Your task to perform on an android device: turn off smart reply in the gmail app Image 0: 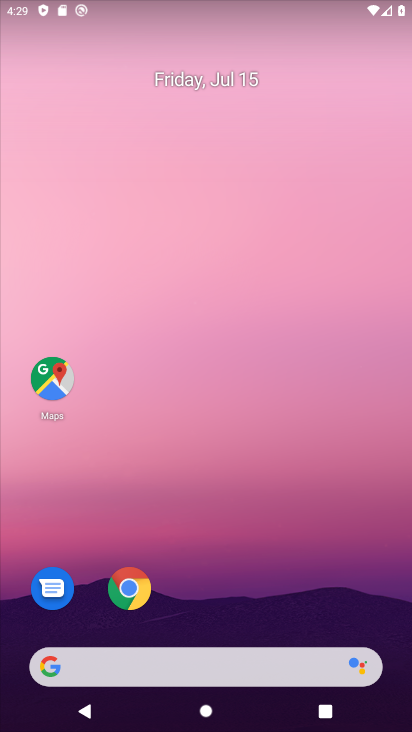
Step 0: drag from (6, 635) to (217, 111)
Your task to perform on an android device: turn off smart reply in the gmail app Image 1: 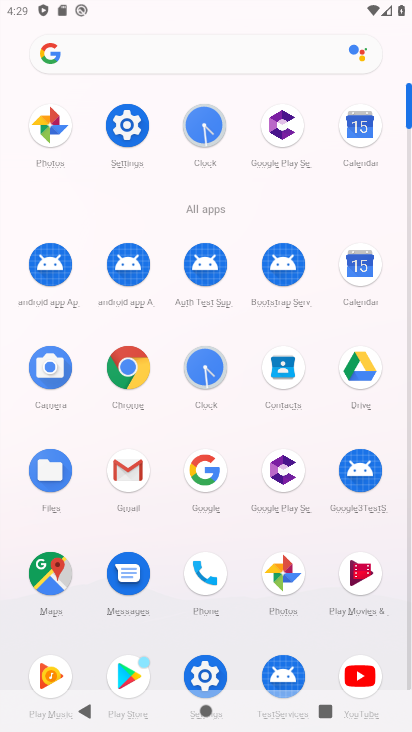
Step 1: click (121, 477)
Your task to perform on an android device: turn off smart reply in the gmail app Image 2: 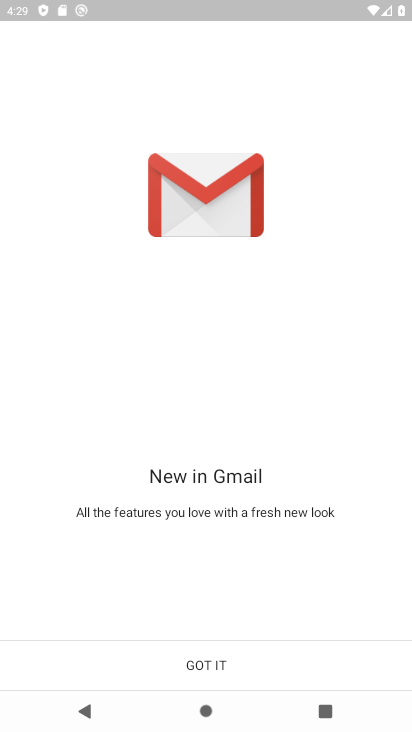
Step 2: click (192, 677)
Your task to perform on an android device: turn off smart reply in the gmail app Image 3: 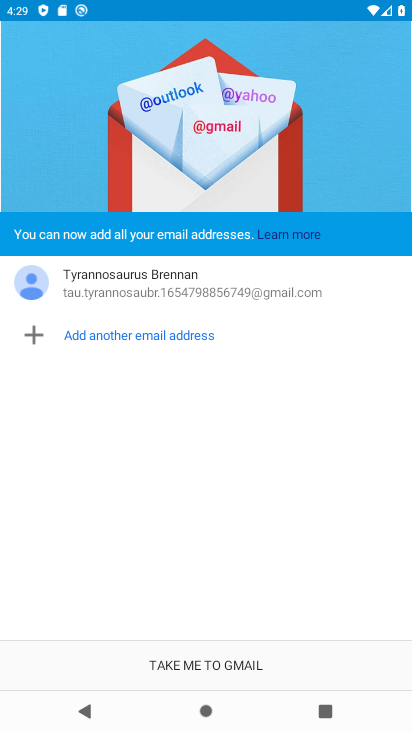
Step 3: click (186, 654)
Your task to perform on an android device: turn off smart reply in the gmail app Image 4: 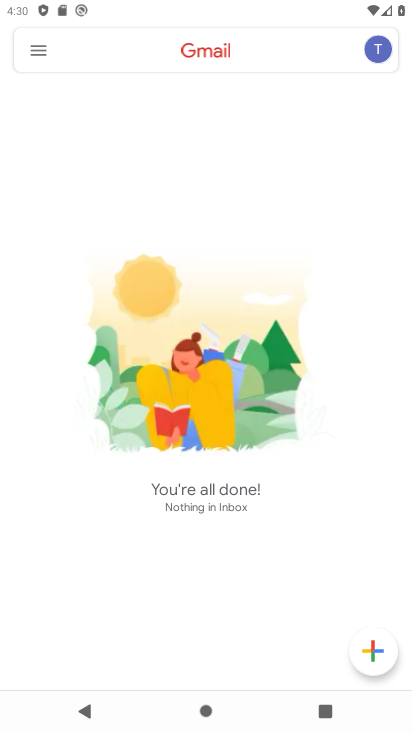
Step 4: click (35, 55)
Your task to perform on an android device: turn off smart reply in the gmail app Image 5: 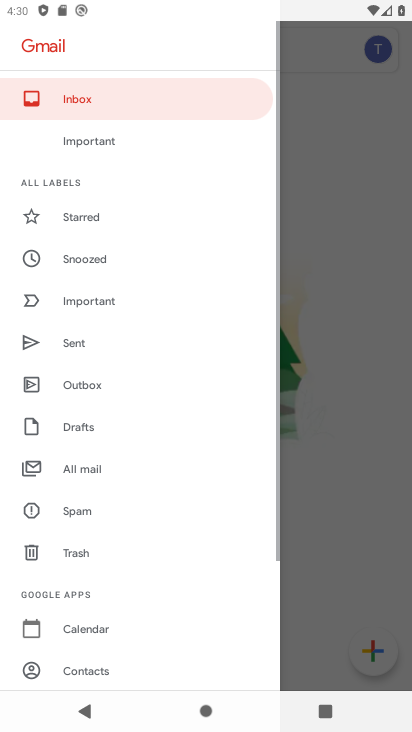
Step 5: drag from (108, 672) to (186, 130)
Your task to perform on an android device: turn off smart reply in the gmail app Image 6: 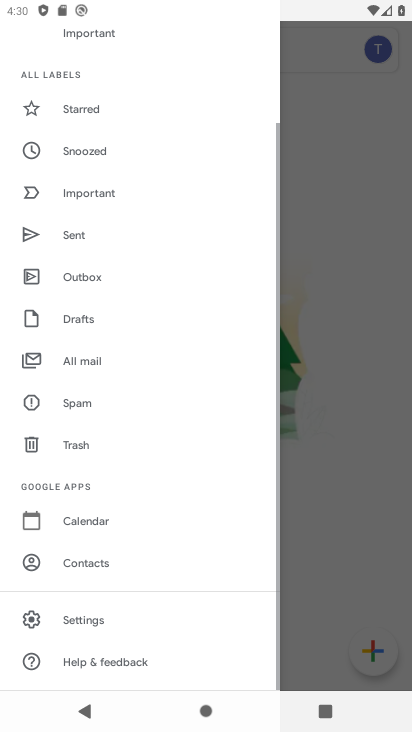
Step 6: drag from (22, 566) to (169, 163)
Your task to perform on an android device: turn off smart reply in the gmail app Image 7: 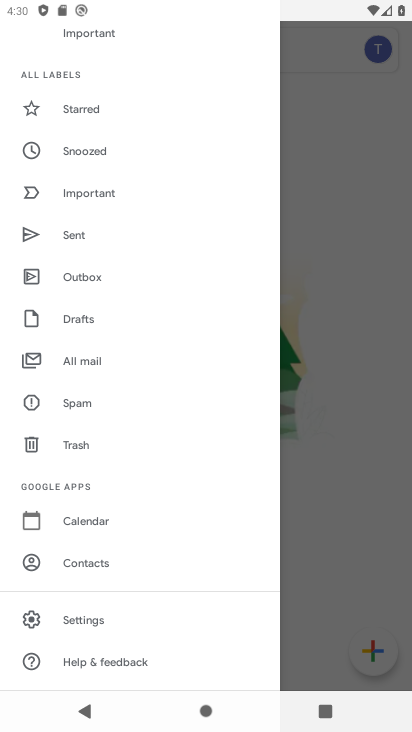
Step 7: click (66, 621)
Your task to perform on an android device: turn off smart reply in the gmail app Image 8: 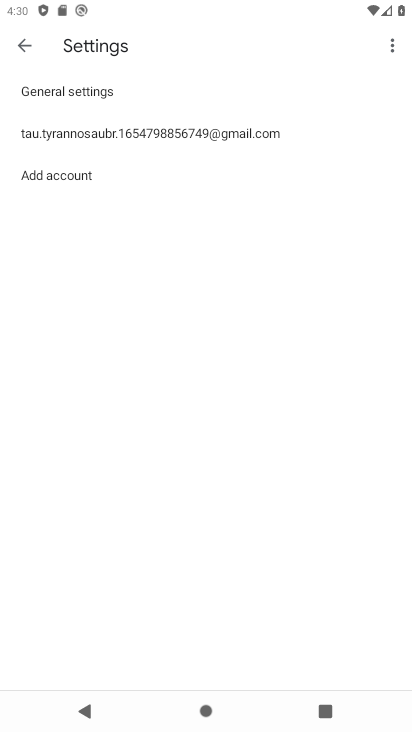
Step 8: click (159, 130)
Your task to perform on an android device: turn off smart reply in the gmail app Image 9: 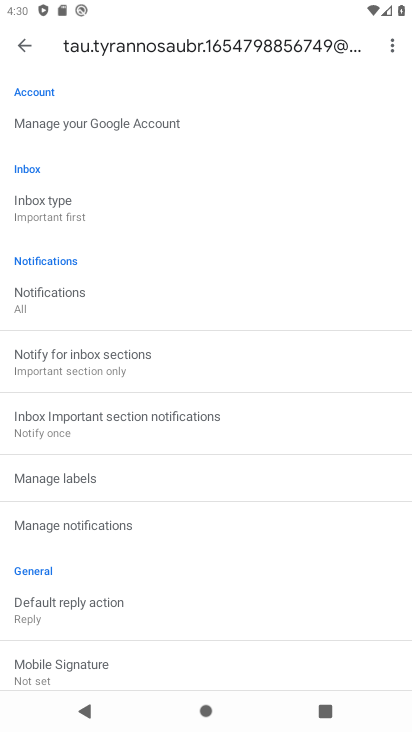
Step 9: drag from (2, 648) to (165, 179)
Your task to perform on an android device: turn off smart reply in the gmail app Image 10: 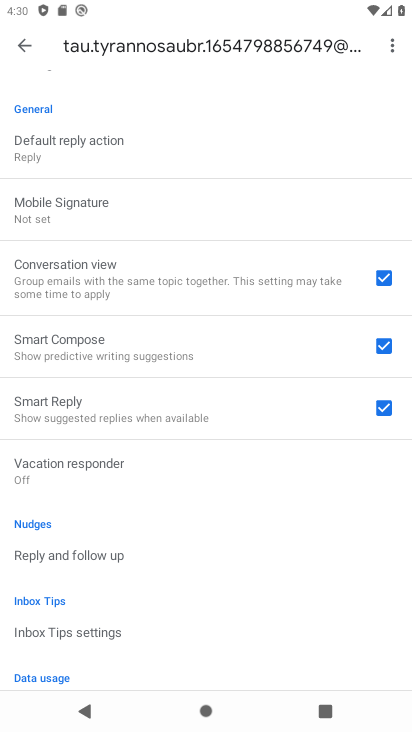
Step 10: click (382, 414)
Your task to perform on an android device: turn off smart reply in the gmail app Image 11: 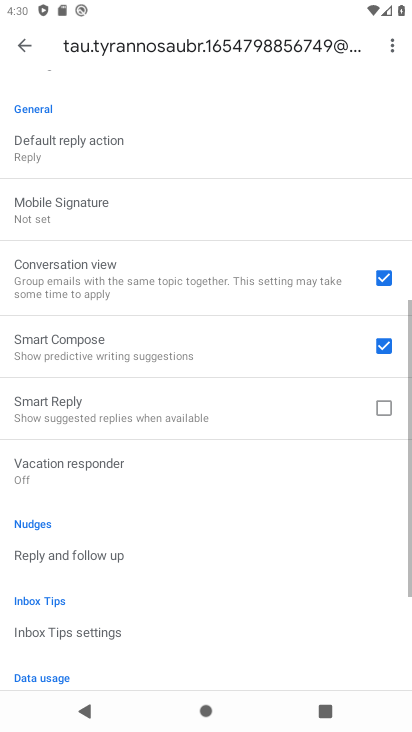
Step 11: task complete